Your task to perform on an android device: Play the last video I watched on Youtube Image 0: 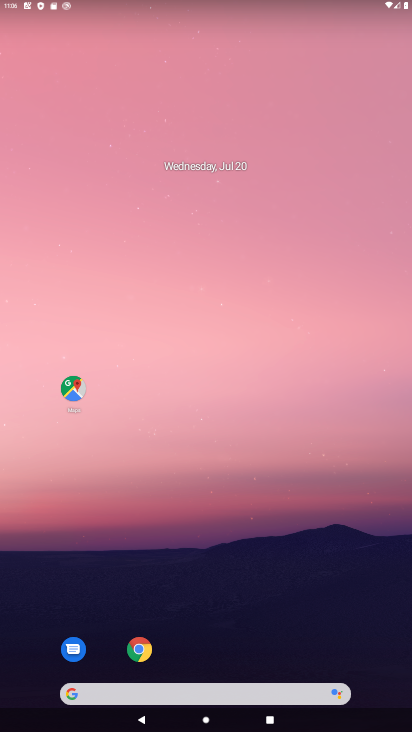
Step 0: drag from (271, 393) to (250, 116)
Your task to perform on an android device: Play the last video I watched on Youtube Image 1: 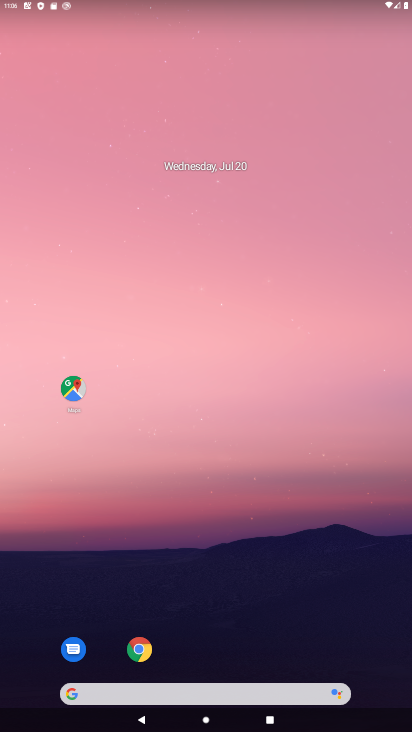
Step 1: drag from (299, 576) to (299, 150)
Your task to perform on an android device: Play the last video I watched on Youtube Image 2: 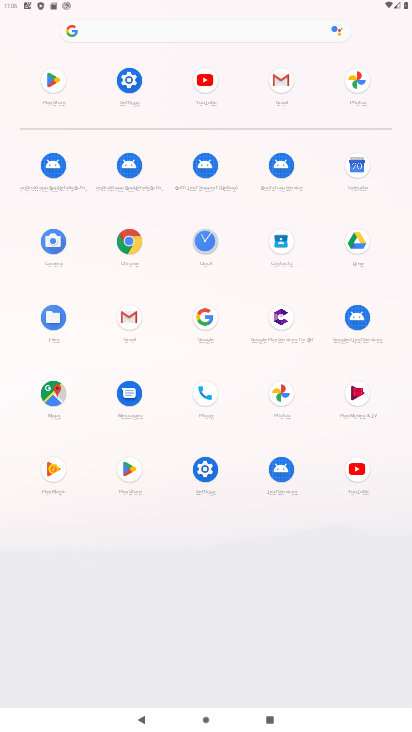
Step 2: click (187, 92)
Your task to perform on an android device: Play the last video I watched on Youtube Image 3: 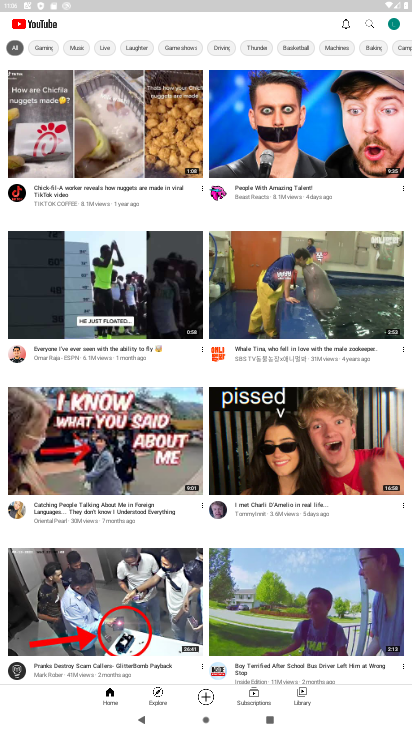
Step 3: click (304, 701)
Your task to perform on an android device: Play the last video I watched on Youtube Image 4: 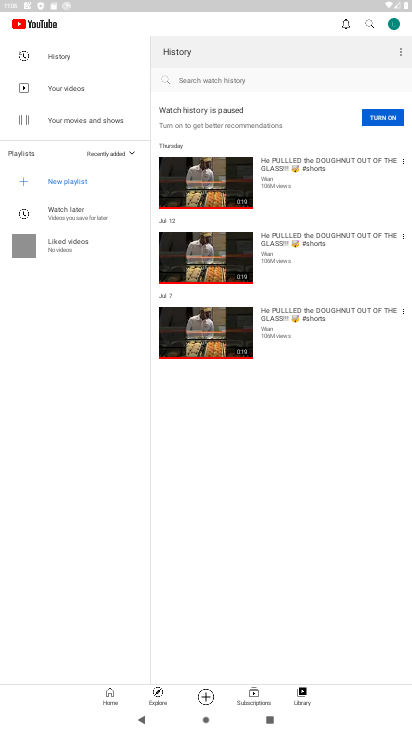
Step 4: click (180, 171)
Your task to perform on an android device: Play the last video I watched on Youtube Image 5: 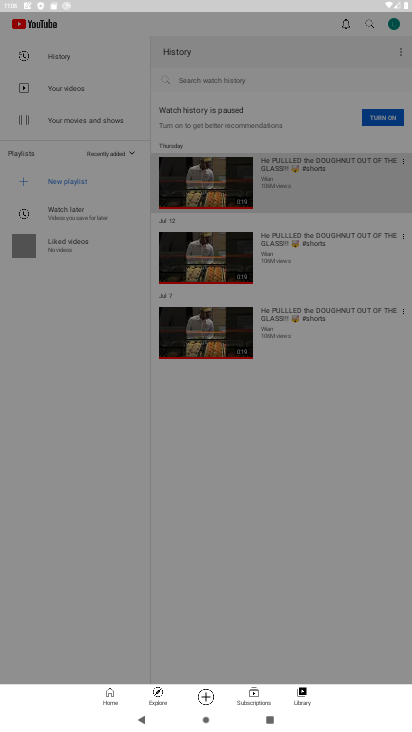
Step 5: task complete